Your task to perform on an android device: View the shopping cart on newegg. Add "usb-c to usb-b" to the cart on newegg, then select checkout. Image 0: 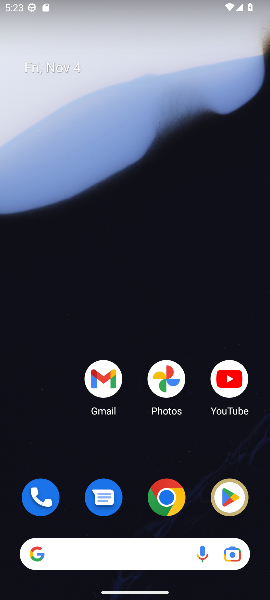
Step 0: click (170, 504)
Your task to perform on an android device: View the shopping cart on newegg. Add "usb-c to usb-b" to the cart on newegg, then select checkout. Image 1: 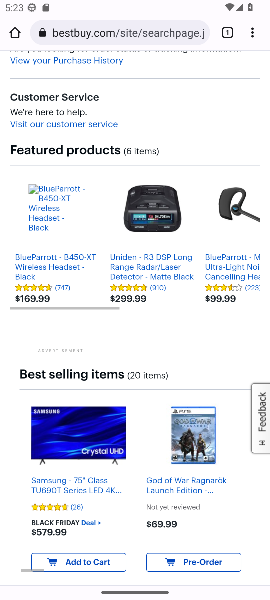
Step 1: click (118, 37)
Your task to perform on an android device: View the shopping cart on newegg. Add "usb-c to usb-b" to the cart on newegg, then select checkout. Image 2: 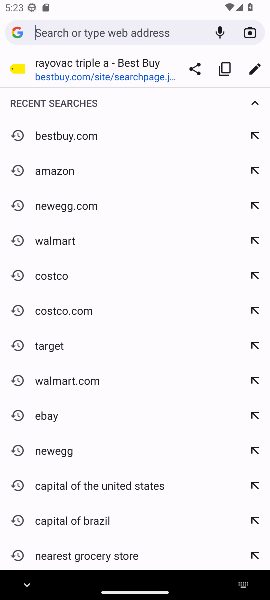
Step 2: type "newegg.com"
Your task to perform on an android device: View the shopping cart on newegg. Add "usb-c to usb-b" to the cart on newegg, then select checkout. Image 3: 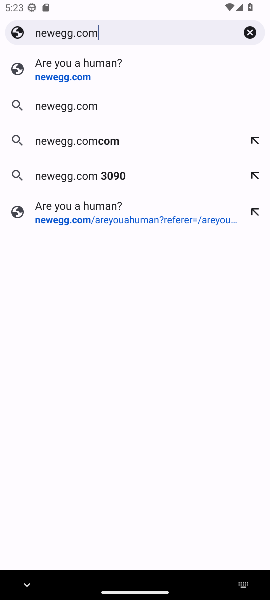
Step 3: click (51, 179)
Your task to perform on an android device: View the shopping cart on newegg. Add "usb-c to usb-b" to the cart on newegg, then select checkout. Image 4: 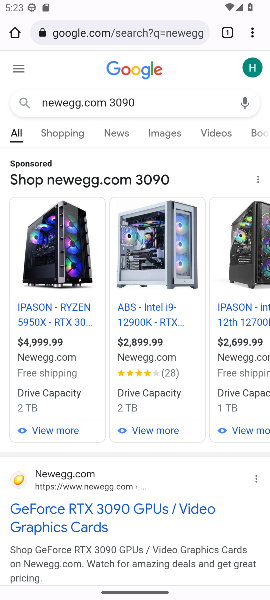
Step 4: drag from (129, 354) to (118, 139)
Your task to perform on an android device: View the shopping cart on newegg. Add "usb-c to usb-b" to the cart on newegg, then select checkout. Image 5: 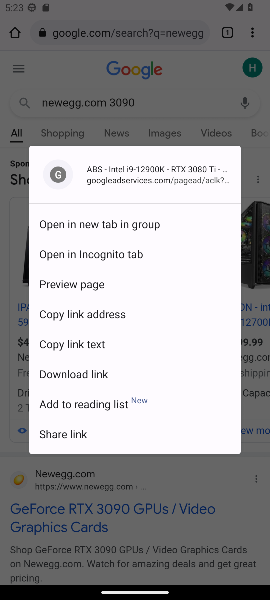
Step 5: drag from (189, 284) to (219, 108)
Your task to perform on an android device: View the shopping cart on newegg. Add "usb-c to usb-b" to the cart on newegg, then select checkout. Image 6: 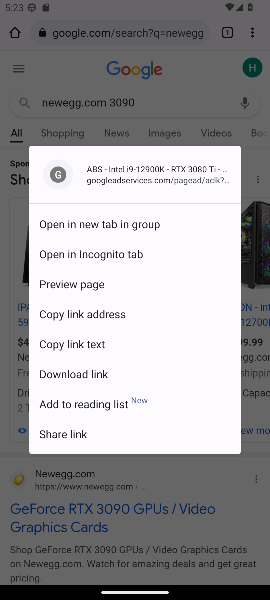
Step 6: click (253, 485)
Your task to perform on an android device: View the shopping cart on newegg. Add "usb-c to usb-b" to the cart on newegg, then select checkout. Image 7: 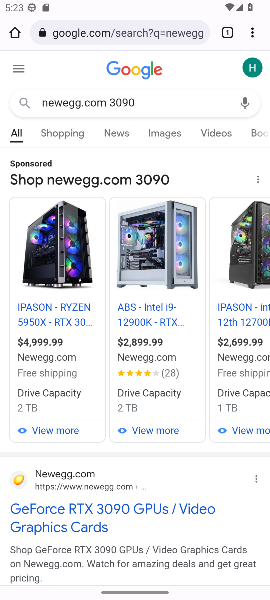
Step 7: drag from (128, 434) to (148, 147)
Your task to perform on an android device: View the shopping cart on newegg. Add "usb-c to usb-b" to the cart on newegg, then select checkout. Image 8: 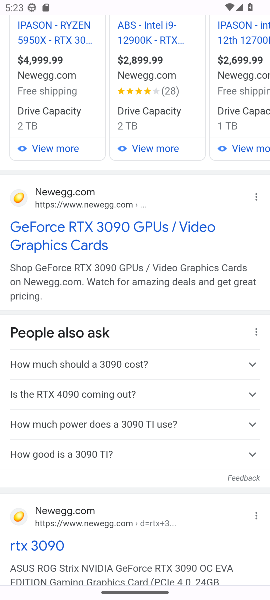
Step 8: click (54, 206)
Your task to perform on an android device: View the shopping cart on newegg. Add "usb-c to usb-b" to the cart on newegg, then select checkout. Image 9: 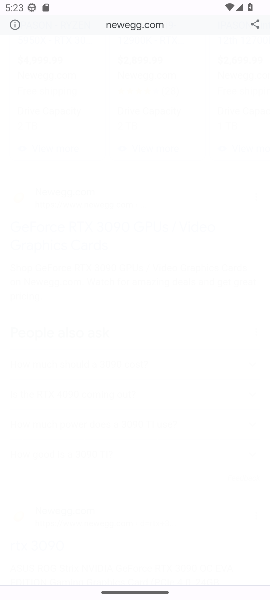
Step 9: press back button
Your task to perform on an android device: View the shopping cart on newegg. Add "usb-c to usb-b" to the cart on newegg, then select checkout. Image 10: 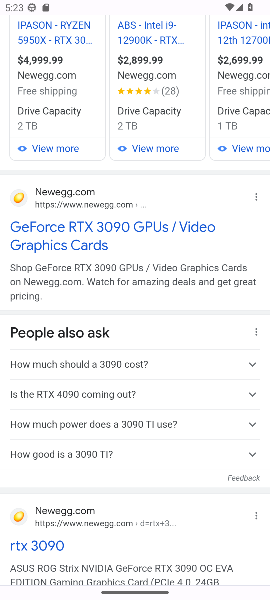
Step 10: click (52, 206)
Your task to perform on an android device: View the shopping cart on newegg. Add "usb-c to usb-b" to the cart on newegg, then select checkout. Image 11: 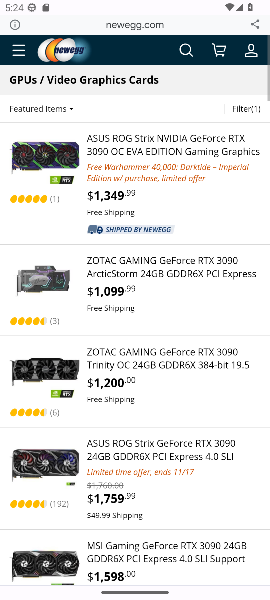
Step 11: drag from (128, 186) to (142, 448)
Your task to perform on an android device: View the shopping cart on newegg. Add "usb-c to usb-b" to the cart on newegg, then select checkout. Image 12: 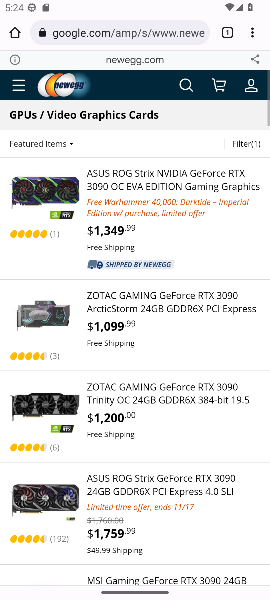
Step 12: click (221, 87)
Your task to perform on an android device: View the shopping cart on newegg. Add "usb-c to usb-b" to the cart on newegg, then select checkout. Image 13: 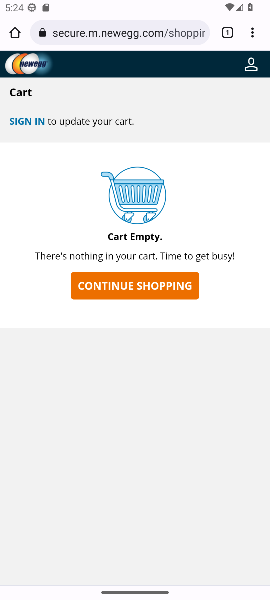
Step 13: click (135, 285)
Your task to perform on an android device: View the shopping cart on newegg. Add "usb-c to usb-b" to the cart on newegg, then select checkout. Image 14: 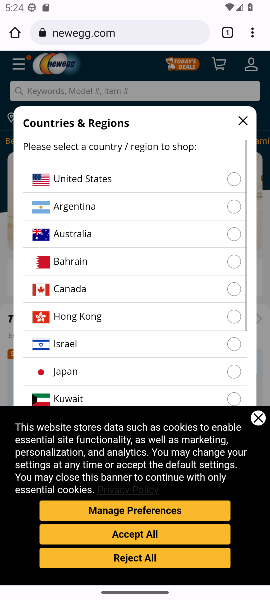
Step 14: click (77, 182)
Your task to perform on an android device: View the shopping cart on newegg. Add "usb-c to usb-b" to the cart on newegg, then select checkout. Image 15: 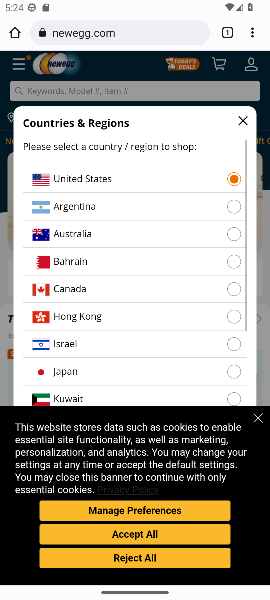
Step 15: click (245, 119)
Your task to perform on an android device: View the shopping cart on newegg. Add "usb-c to usb-b" to the cart on newegg, then select checkout. Image 16: 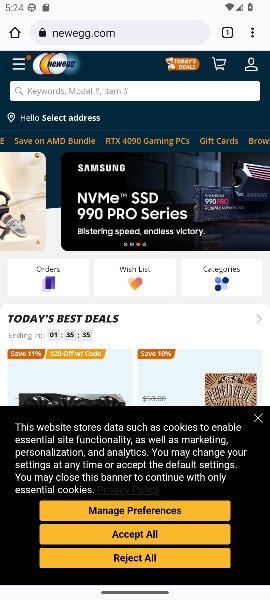
Step 16: click (69, 93)
Your task to perform on an android device: View the shopping cart on newegg. Add "usb-c to usb-b" to the cart on newegg, then select checkout. Image 17: 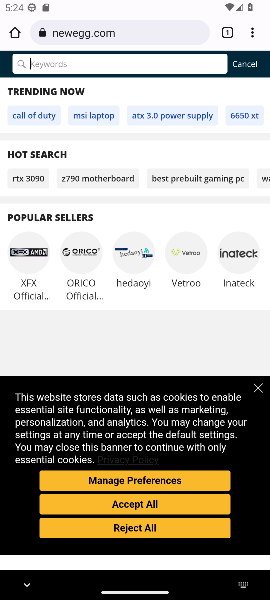
Step 17: type "usb-c to usb-b"
Your task to perform on an android device: View the shopping cart on newegg. Add "usb-c to usb-b" to the cart on newegg, then select checkout. Image 18: 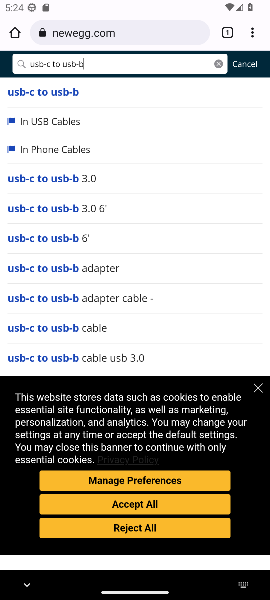
Step 18: click (46, 88)
Your task to perform on an android device: View the shopping cart on newegg. Add "usb-c to usb-b" to the cart on newegg, then select checkout. Image 19: 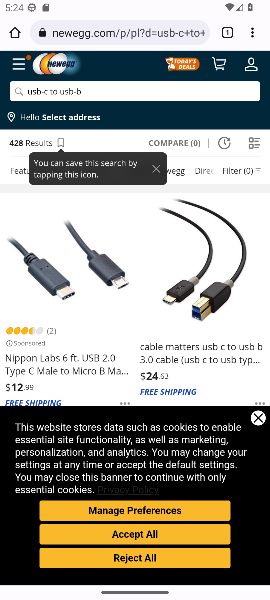
Step 19: click (194, 299)
Your task to perform on an android device: View the shopping cart on newegg. Add "usb-c to usb-b" to the cart on newegg, then select checkout. Image 20: 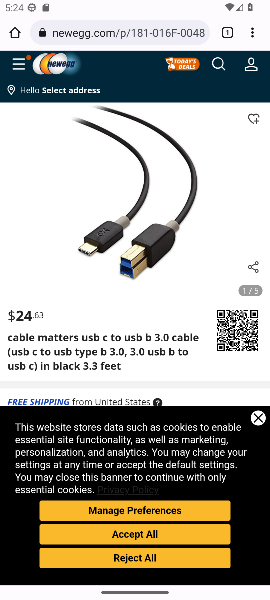
Step 20: click (258, 418)
Your task to perform on an android device: View the shopping cart on newegg. Add "usb-c to usb-b" to the cart on newegg, then select checkout. Image 21: 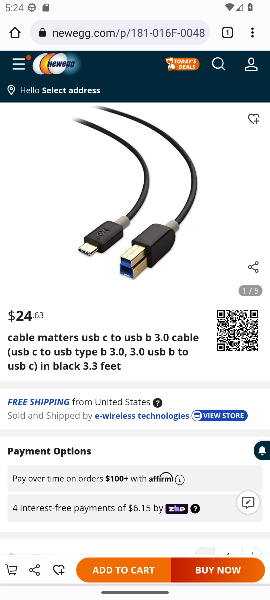
Step 21: click (112, 570)
Your task to perform on an android device: View the shopping cart on newegg. Add "usb-c to usb-b" to the cart on newegg, then select checkout. Image 22: 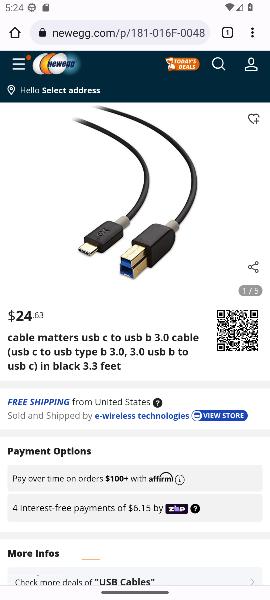
Step 22: click (12, 568)
Your task to perform on an android device: View the shopping cart on newegg. Add "usb-c to usb-b" to the cart on newegg, then select checkout. Image 23: 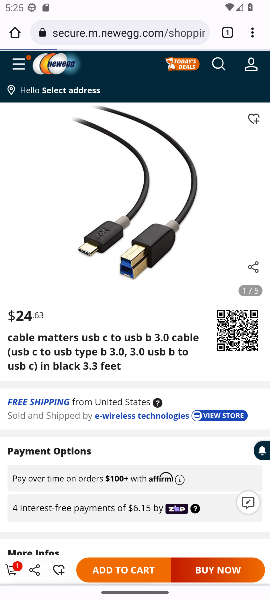
Step 23: click (12, 566)
Your task to perform on an android device: View the shopping cart on newegg. Add "usb-c to usb-b" to the cart on newegg, then select checkout. Image 24: 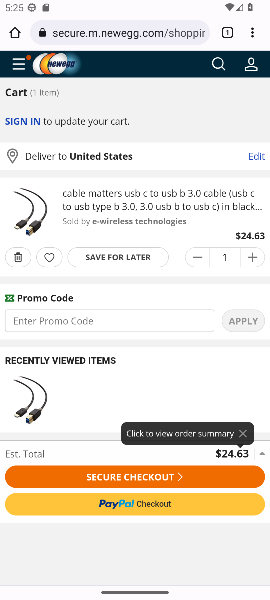
Step 24: click (104, 473)
Your task to perform on an android device: View the shopping cart on newegg. Add "usb-c to usb-b" to the cart on newegg, then select checkout. Image 25: 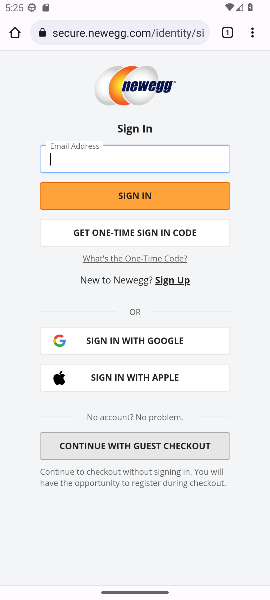
Step 25: task complete